Your task to perform on an android device: turn on sleep mode Image 0: 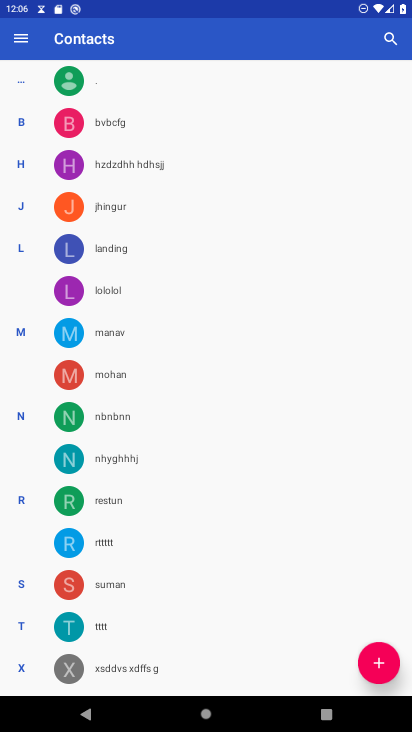
Step 0: press home button
Your task to perform on an android device: turn on sleep mode Image 1: 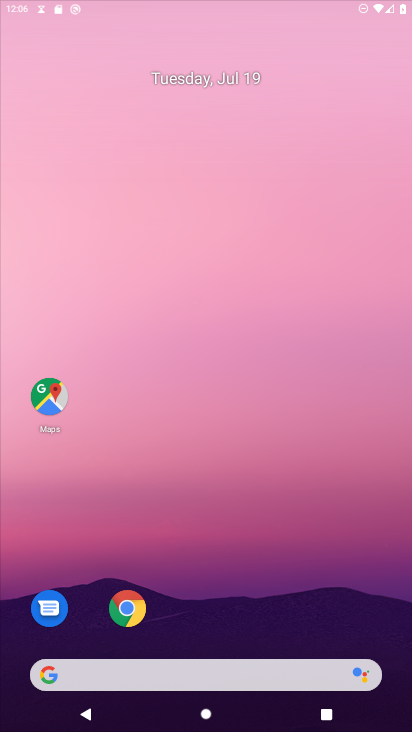
Step 1: drag from (250, 611) to (406, 85)
Your task to perform on an android device: turn on sleep mode Image 2: 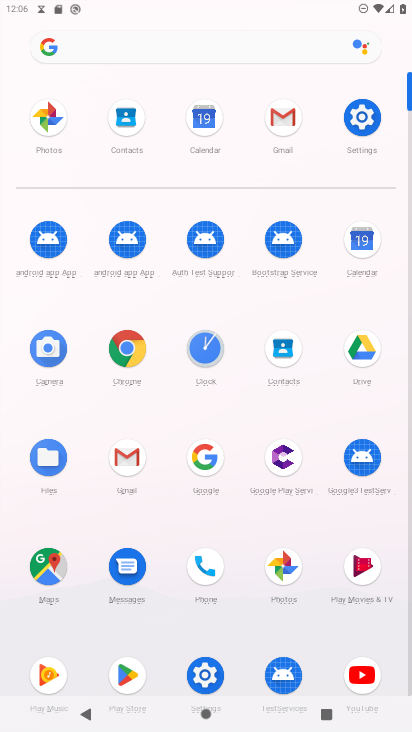
Step 2: click (359, 135)
Your task to perform on an android device: turn on sleep mode Image 3: 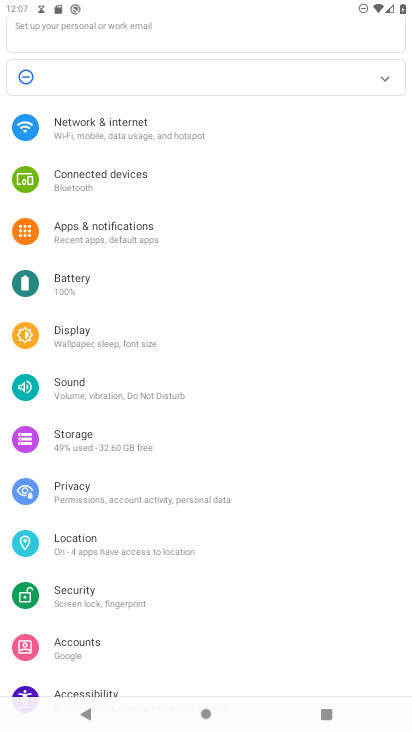
Step 3: click (153, 350)
Your task to perform on an android device: turn on sleep mode Image 4: 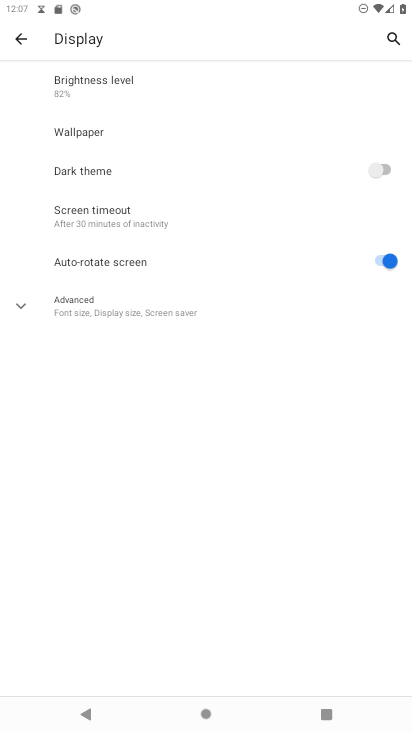
Step 4: task complete